Your task to perform on an android device: turn off smart reply in the gmail app Image 0: 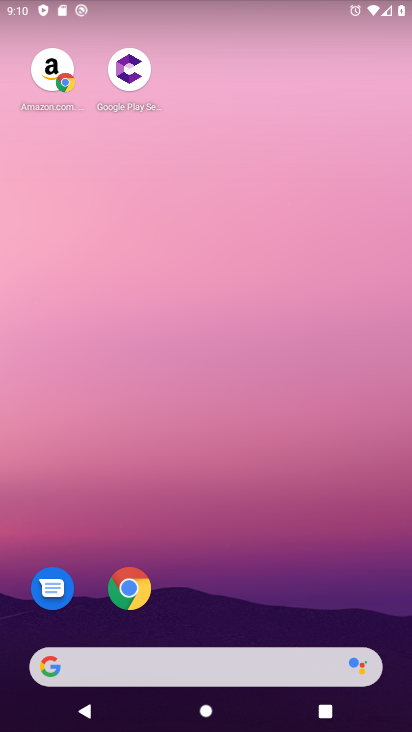
Step 0: drag from (283, 534) to (104, 0)
Your task to perform on an android device: turn off smart reply in the gmail app Image 1: 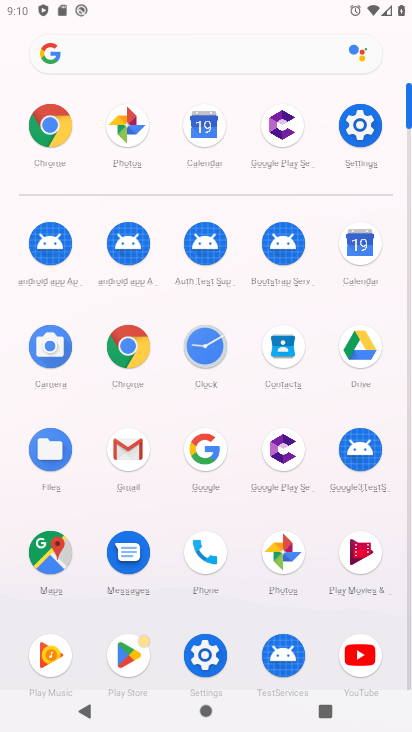
Step 1: click (122, 439)
Your task to perform on an android device: turn off smart reply in the gmail app Image 2: 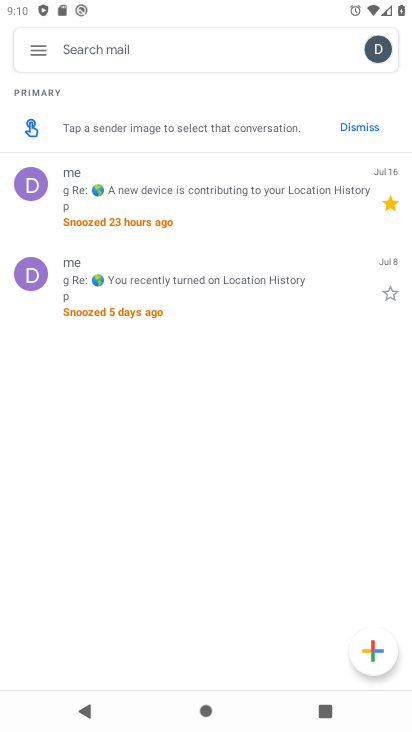
Step 2: click (38, 53)
Your task to perform on an android device: turn off smart reply in the gmail app Image 3: 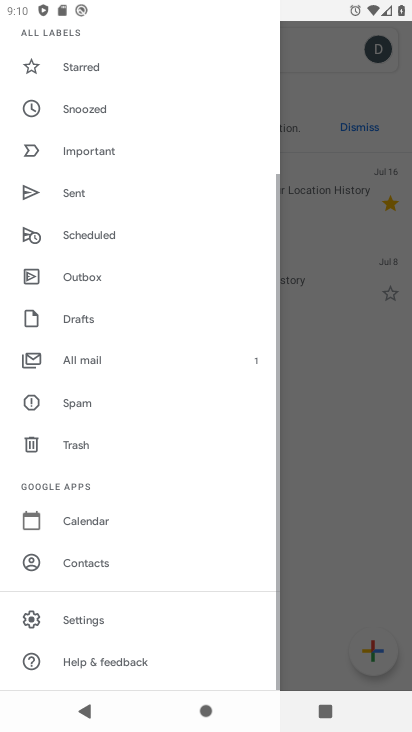
Step 3: drag from (129, 628) to (205, 110)
Your task to perform on an android device: turn off smart reply in the gmail app Image 4: 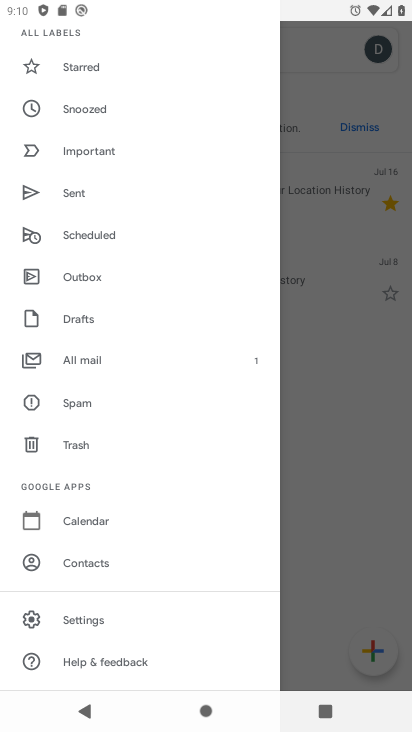
Step 4: click (87, 627)
Your task to perform on an android device: turn off smart reply in the gmail app Image 5: 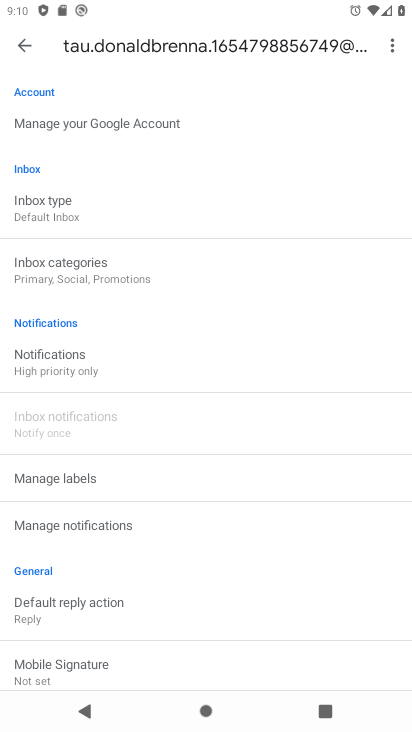
Step 5: drag from (120, 610) to (198, 177)
Your task to perform on an android device: turn off smart reply in the gmail app Image 6: 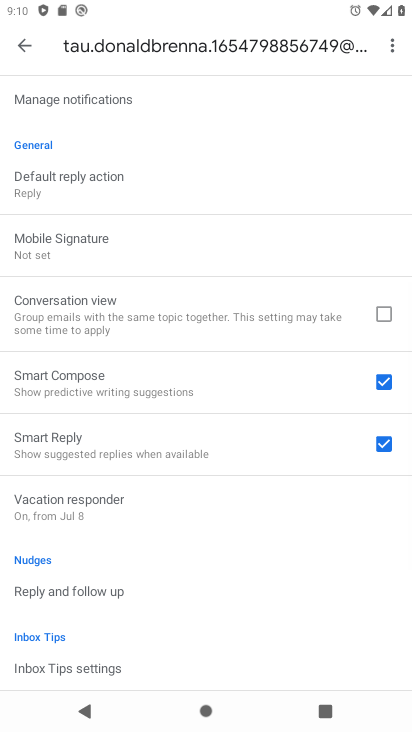
Step 6: drag from (205, 274) to (226, 522)
Your task to perform on an android device: turn off smart reply in the gmail app Image 7: 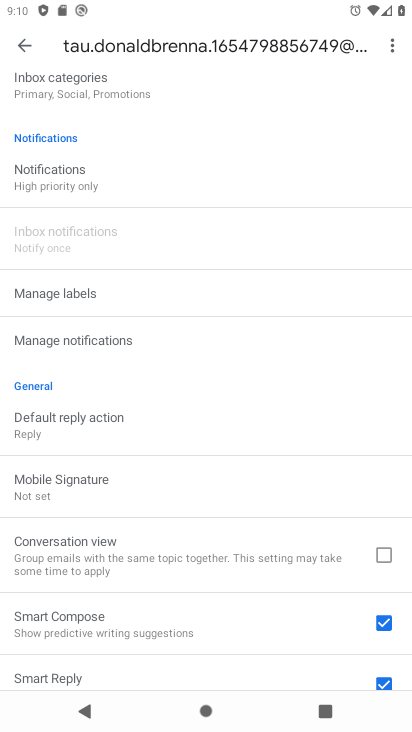
Step 7: drag from (165, 625) to (299, 162)
Your task to perform on an android device: turn off smart reply in the gmail app Image 8: 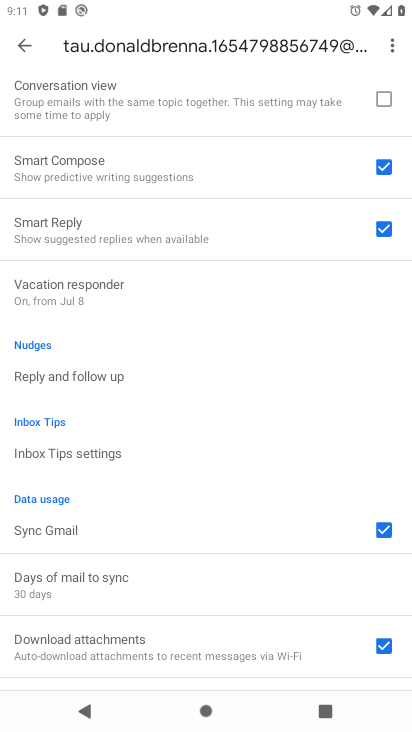
Step 8: drag from (167, 273) to (222, 727)
Your task to perform on an android device: turn off smart reply in the gmail app Image 9: 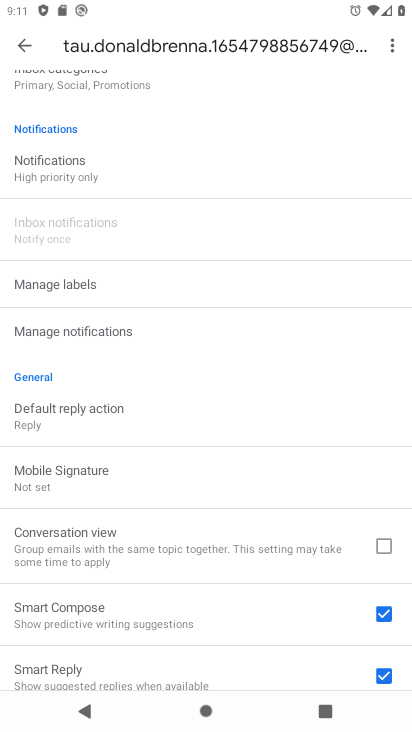
Step 9: drag from (201, 642) to (274, 382)
Your task to perform on an android device: turn off smart reply in the gmail app Image 10: 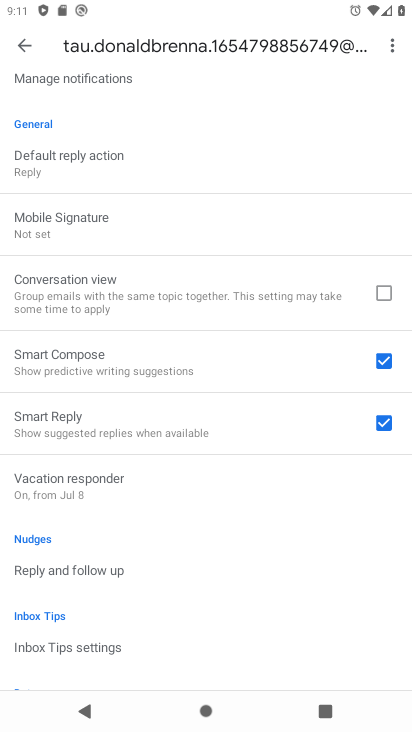
Step 10: click (389, 421)
Your task to perform on an android device: turn off smart reply in the gmail app Image 11: 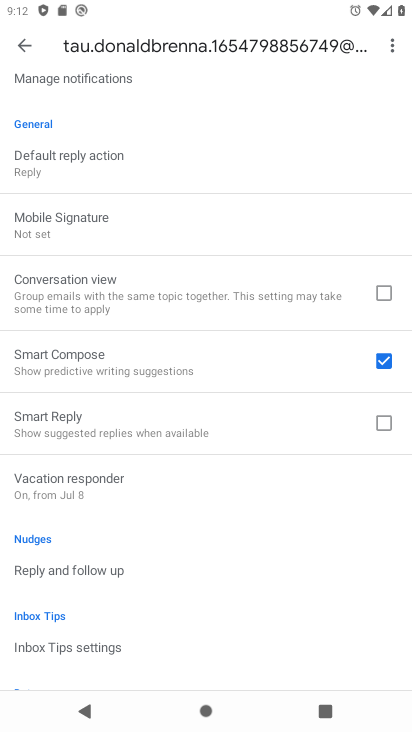
Step 11: task complete